Your task to perform on an android device: Go to ESPN.com Image 0: 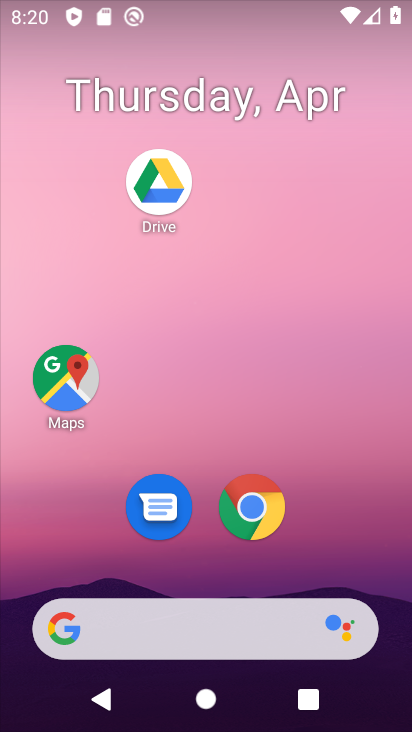
Step 0: drag from (361, 513) to (362, 127)
Your task to perform on an android device: Go to ESPN.com Image 1: 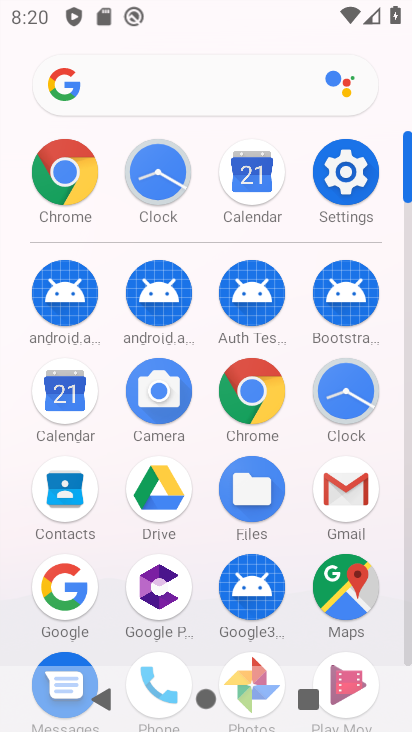
Step 1: click (245, 404)
Your task to perform on an android device: Go to ESPN.com Image 2: 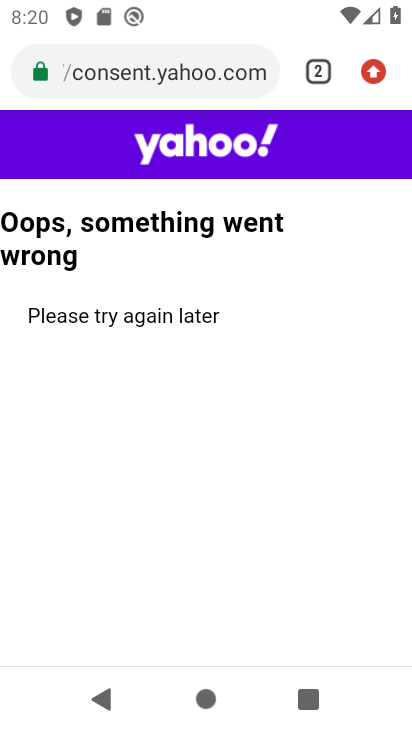
Step 2: click (193, 79)
Your task to perform on an android device: Go to ESPN.com Image 3: 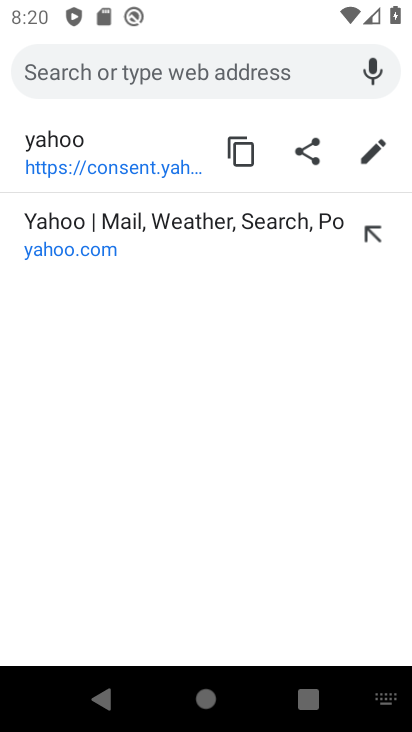
Step 3: type "espn.com"
Your task to perform on an android device: Go to ESPN.com Image 4: 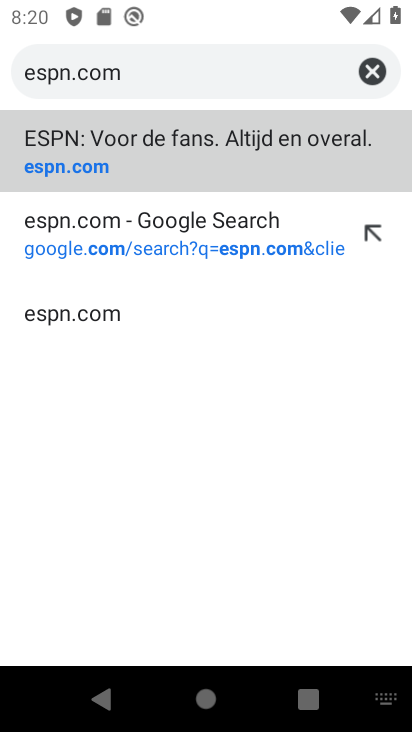
Step 4: click (87, 308)
Your task to perform on an android device: Go to ESPN.com Image 5: 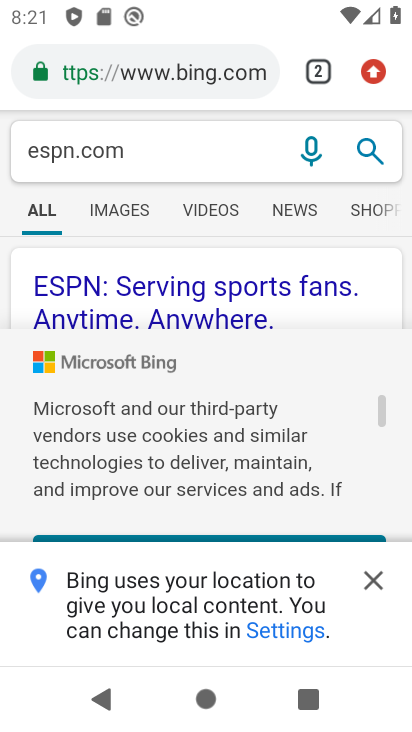
Step 5: task complete